Your task to perform on an android device: Open the stopwatch Image 0: 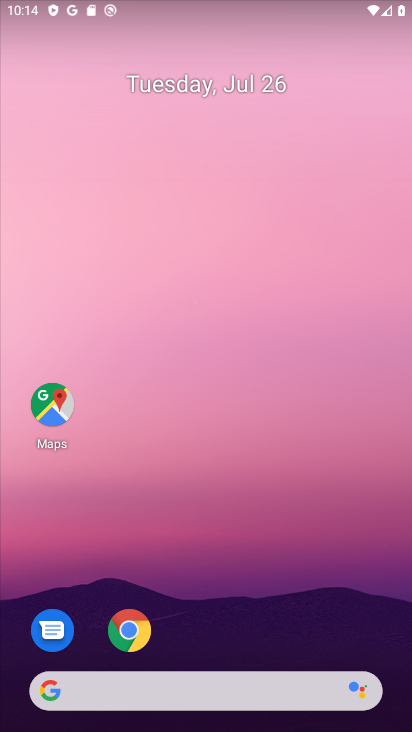
Step 0: drag from (174, 729) to (1, 20)
Your task to perform on an android device: Open the stopwatch Image 1: 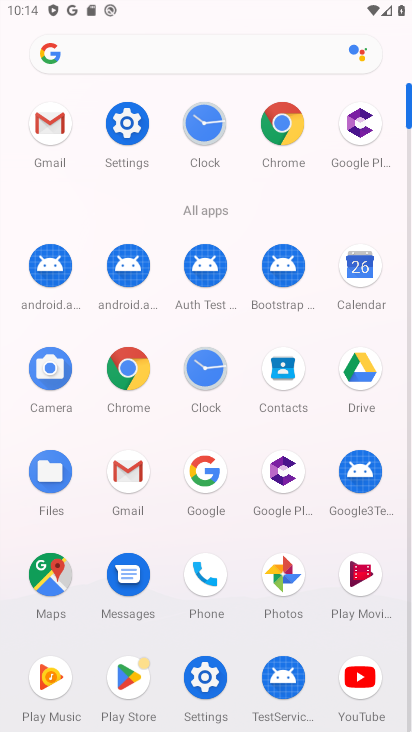
Step 1: click (193, 358)
Your task to perform on an android device: Open the stopwatch Image 2: 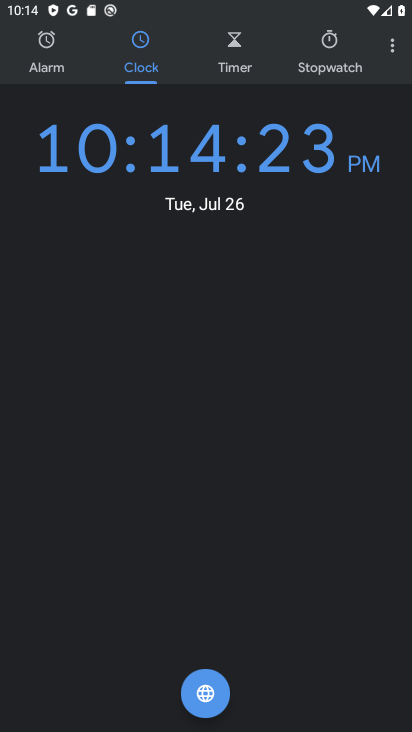
Step 2: click (335, 57)
Your task to perform on an android device: Open the stopwatch Image 3: 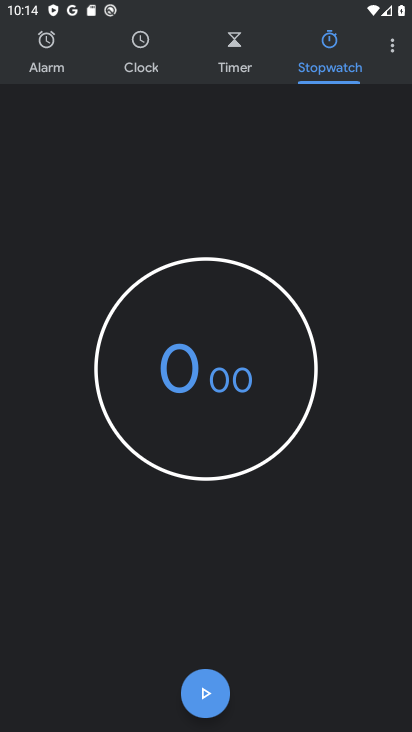
Step 3: task complete